Your task to perform on an android device: see sites visited before in the chrome app Image 0: 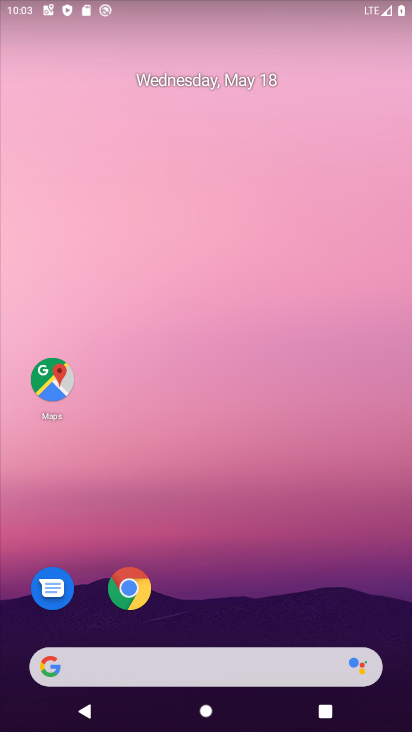
Step 0: click (132, 582)
Your task to perform on an android device: see sites visited before in the chrome app Image 1: 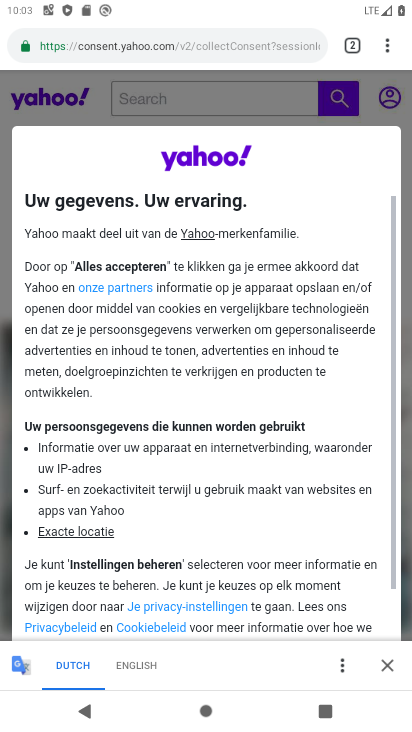
Step 1: task complete